Your task to perform on an android device: check android version Image 0: 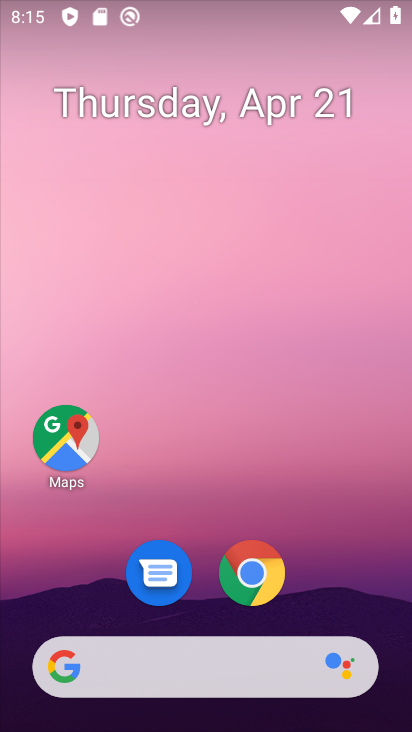
Step 0: click (324, 18)
Your task to perform on an android device: check android version Image 1: 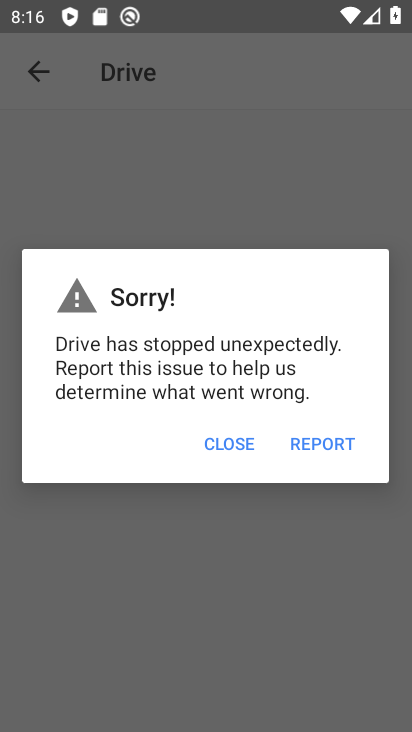
Step 1: press home button
Your task to perform on an android device: check android version Image 2: 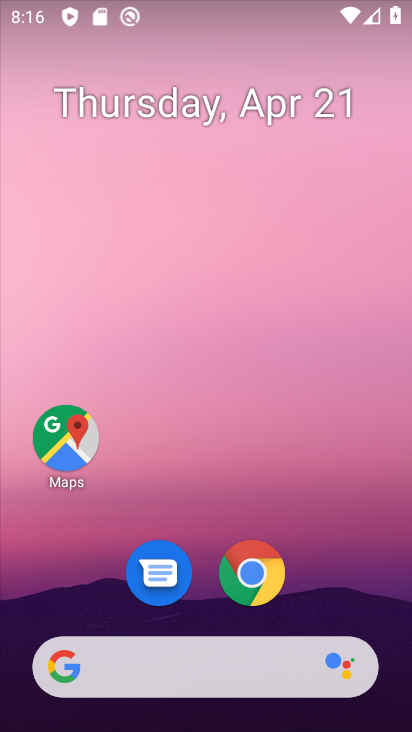
Step 2: drag from (344, 502) to (279, 103)
Your task to perform on an android device: check android version Image 3: 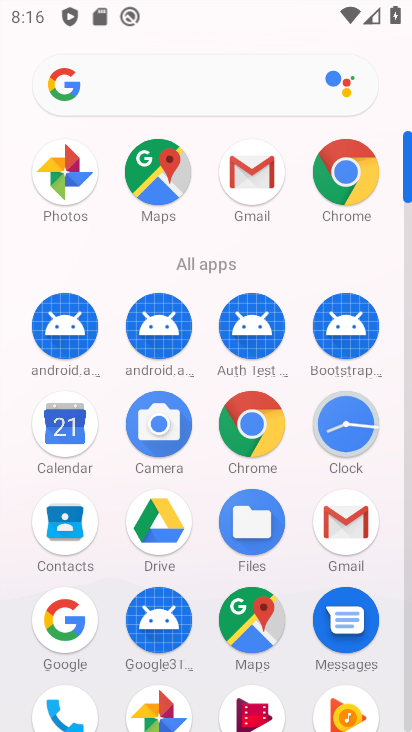
Step 3: drag from (204, 254) to (198, 45)
Your task to perform on an android device: check android version Image 4: 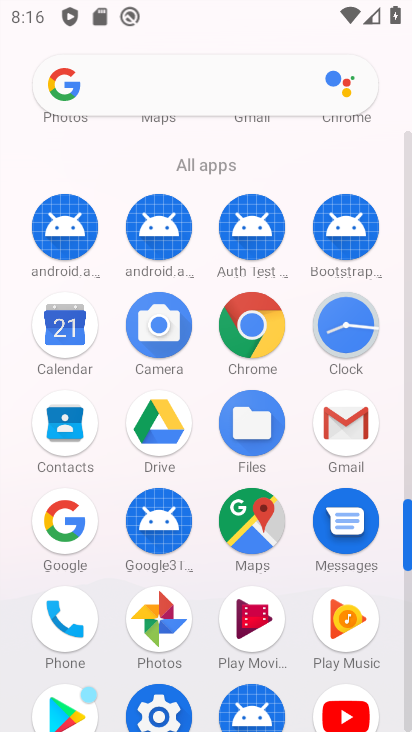
Step 4: click (160, 685)
Your task to perform on an android device: check android version Image 5: 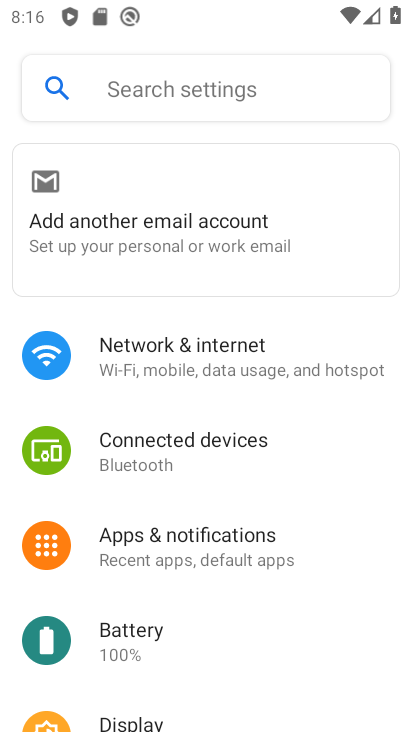
Step 5: drag from (165, 671) to (217, 28)
Your task to perform on an android device: check android version Image 6: 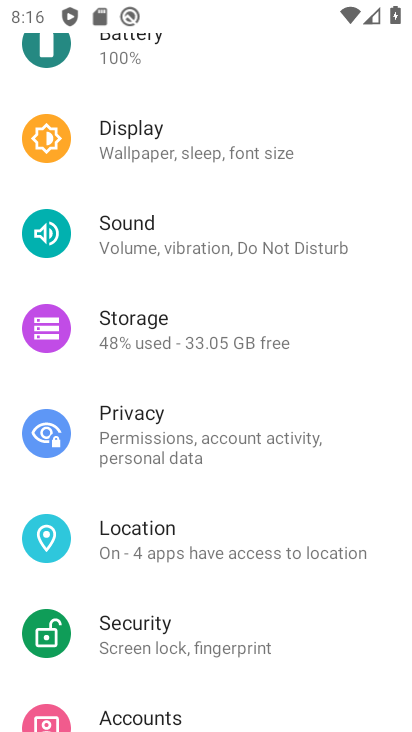
Step 6: drag from (231, 685) to (213, 13)
Your task to perform on an android device: check android version Image 7: 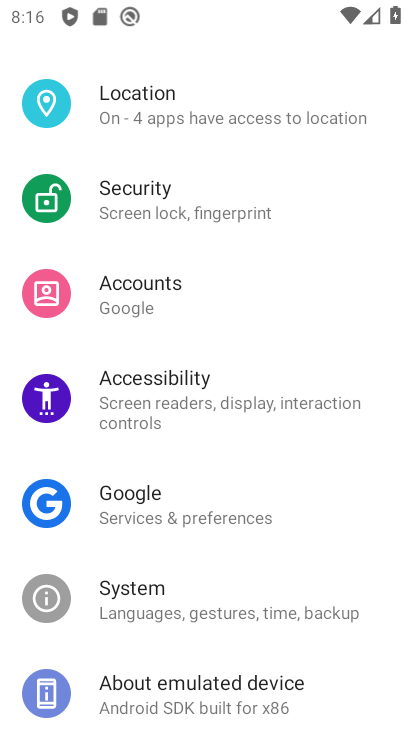
Step 7: click (189, 701)
Your task to perform on an android device: check android version Image 8: 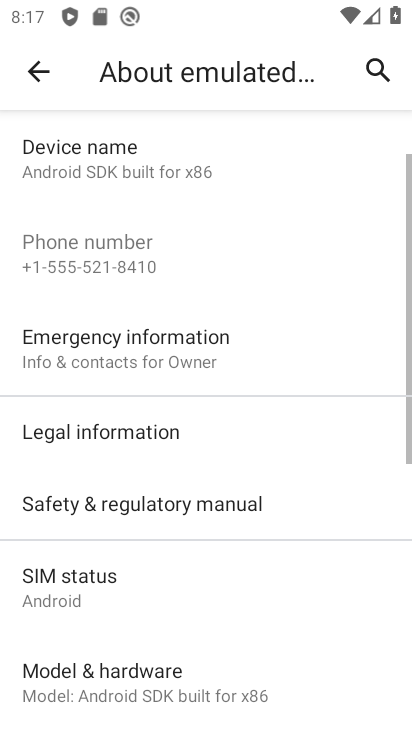
Step 8: drag from (162, 560) to (165, 247)
Your task to perform on an android device: check android version Image 9: 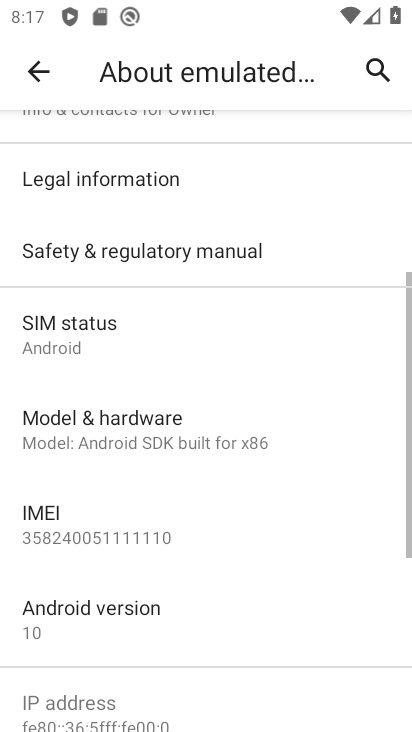
Step 9: click (153, 623)
Your task to perform on an android device: check android version Image 10: 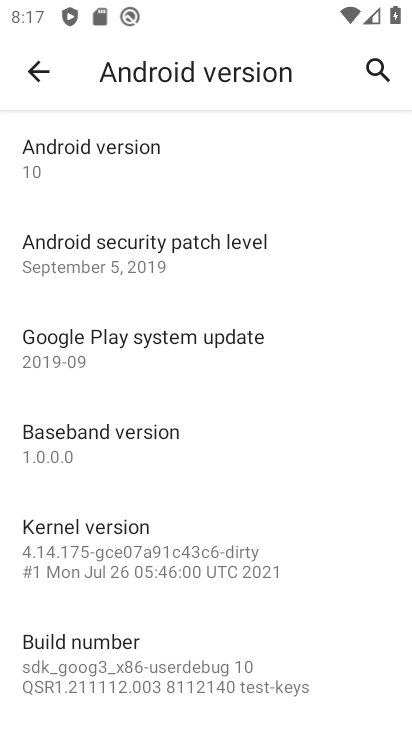
Step 10: task complete